Your task to perform on an android device: change your default location settings in chrome Image 0: 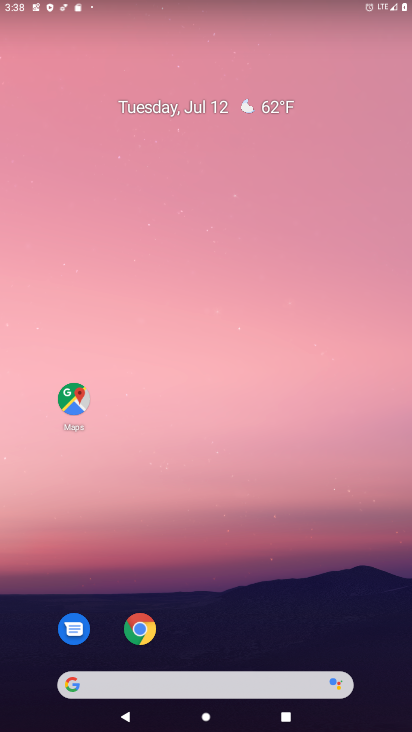
Step 0: drag from (196, 671) to (196, 159)
Your task to perform on an android device: change your default location settings in chrome Image 1: 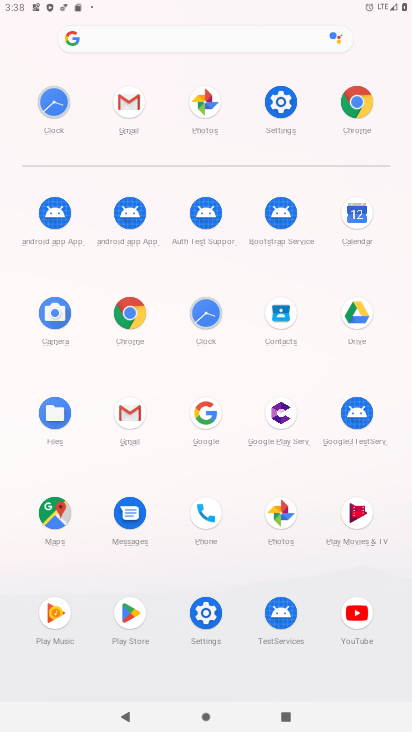
Step 1: click (363, 107)
Your task to perform on an android device: change your default location settings in chrome Image 2: 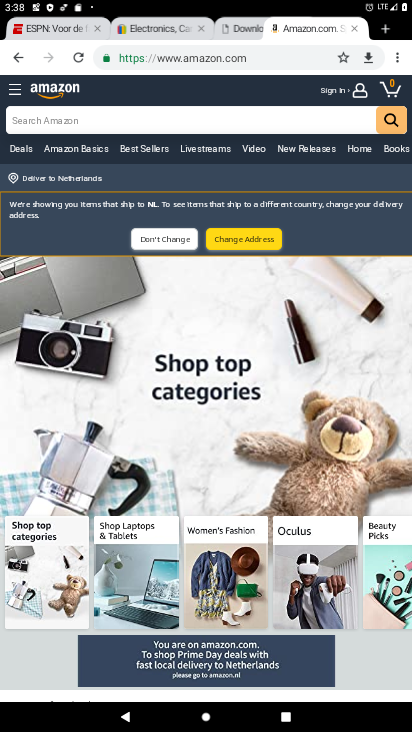
Step 2: drag from (400, 49) to (294, 383)
Your task to perform on an android device: change your default location settings in chrome Image 3: 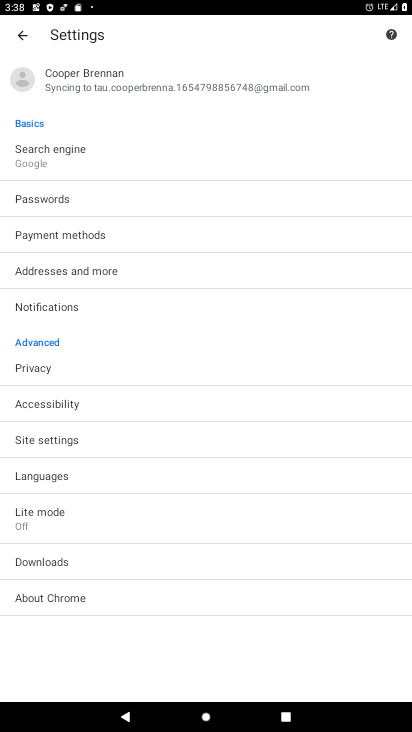
Step 3: click (43, 449)
Your task to perform on an android device: change your default location settings in chrome Image 4: 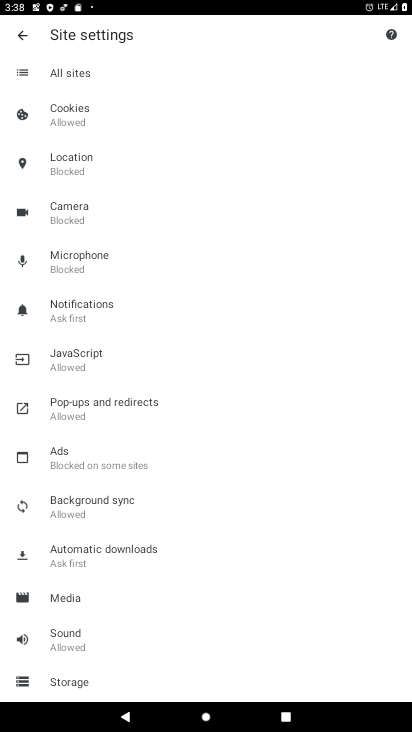
Step 4: click (68, 167)
Your task to perform on an android device: change your default location settings in chrome Image 5: 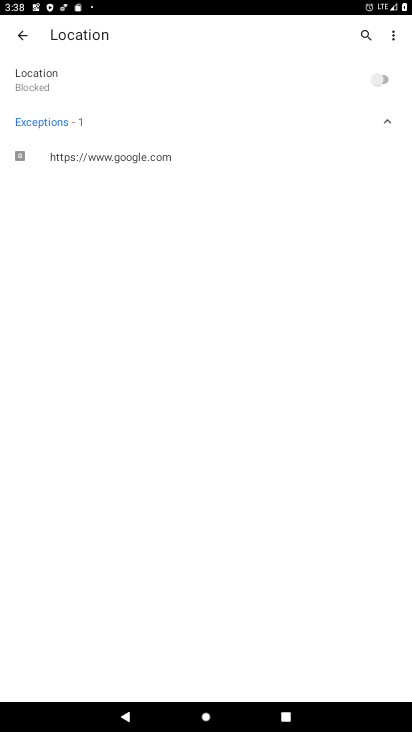
Step 5: click (373, 71)
Your task to perform on an android device: change your default location settings in chrome Image 6: 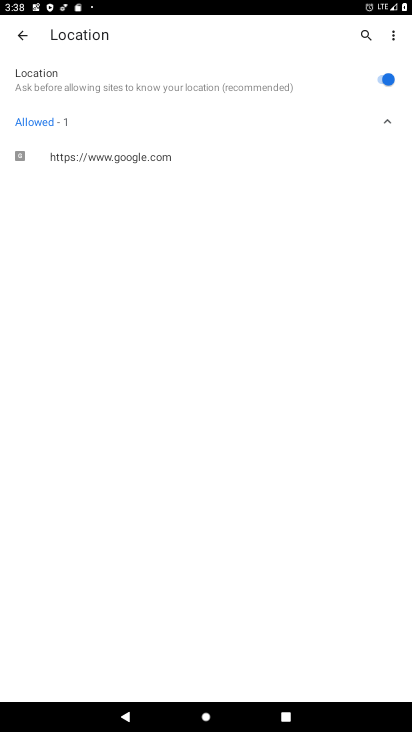
Step 6: task complete